Your task to perform on an android device: turn on improve location accuracy Image 0: 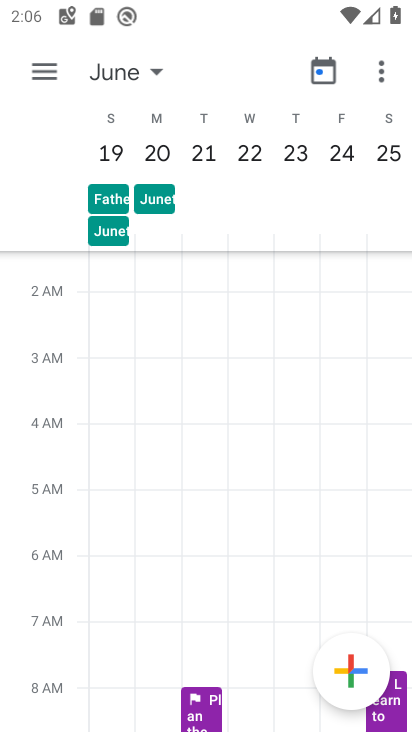
Step 0: press home button
Your task to perform on an android device: turn on improve location accuracy Image 1: 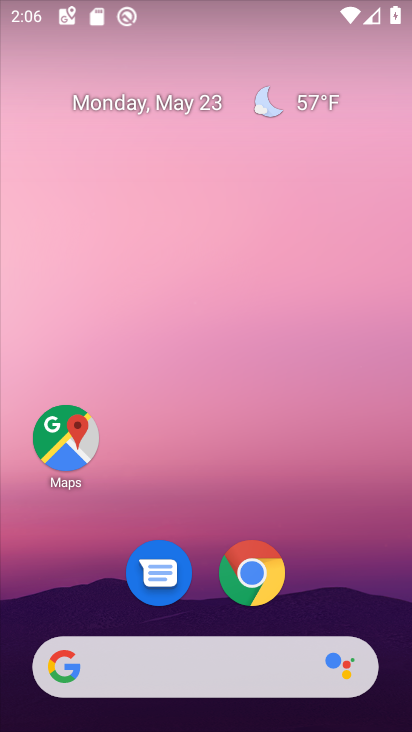
Step 1: drag from (351, 560) to (369, 130)
Your task to perform on an android device: turn on improve location accuracy Image 2: 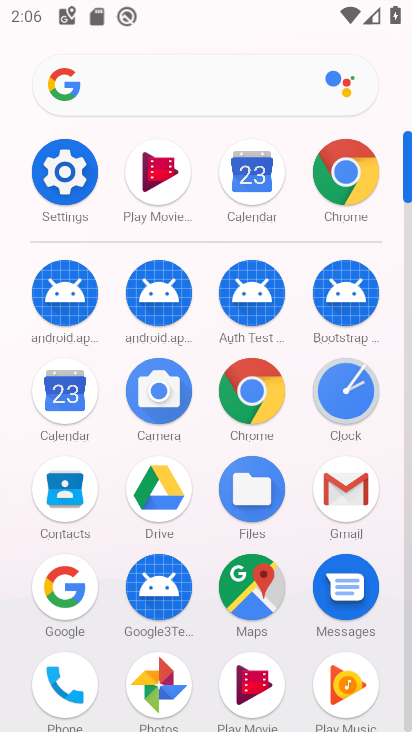
Step 2: click (86, 178)
Your task to perform on an android device: turn on improve location accuracy Image 3: 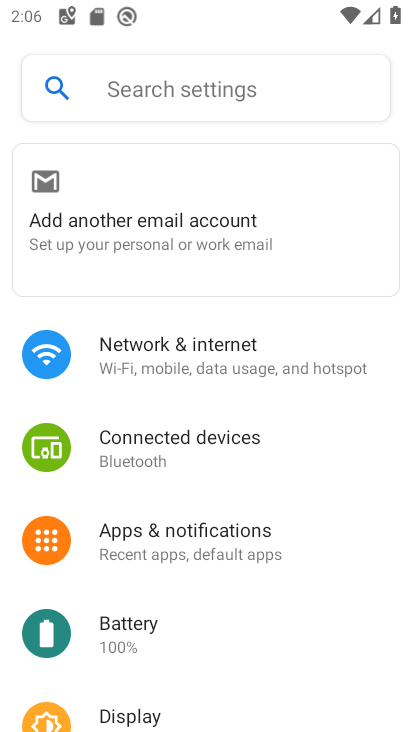
Step 3: drag from (256, 583) to (302, 115)
Your task to perform on an android device: turn on improve location accuracy Image 4: 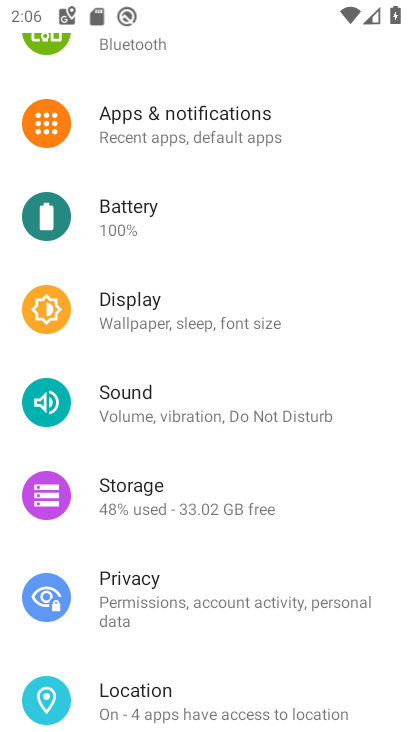
Step 4: drag from (210, 563) to (216, 255)
Your task to perform on an android device: turn on improve location accuracy Image 5: 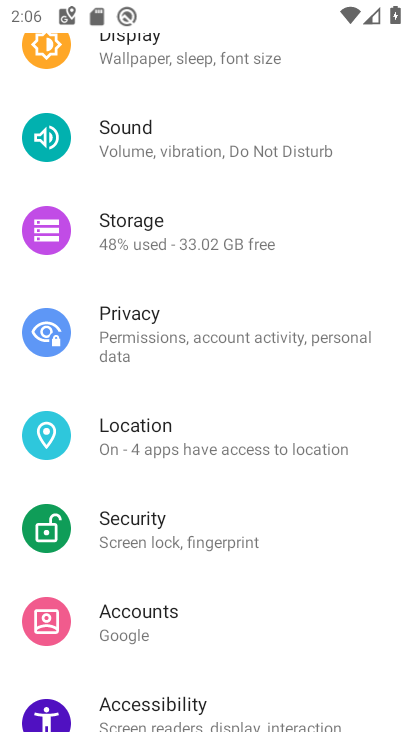
Step 5: click (219, 432)
Your task to perform on an android device: turn on improve location accuracy Image 6: 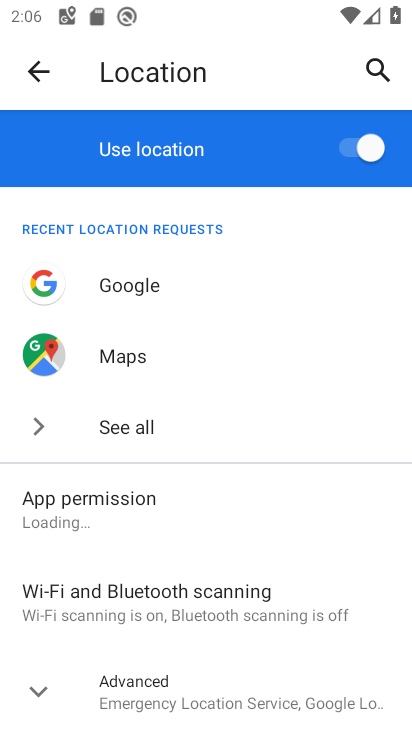
Step 6: drag from (238, 606) to (268, 281)
Your task to perform on an android device: turn on improve location accuracy Image 7: 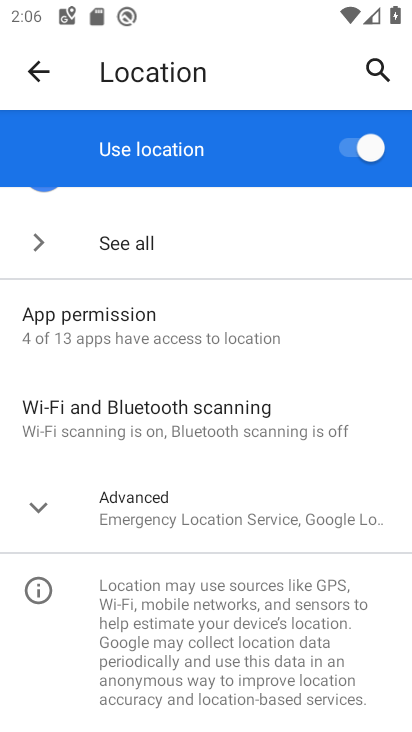
Step 7: click (222, 484)
Your task to perform on an android device: turn on improve location accuracy Image 8: 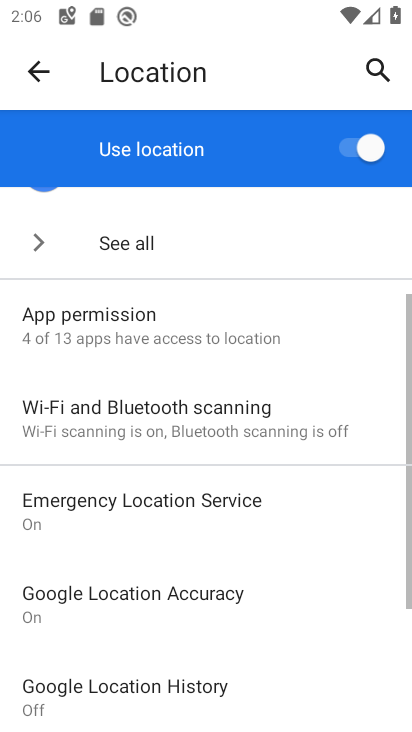
Step 8: drag from (205, 653) to (203, 372)
Your task to perform on an android device: turn on improve location accuracy Image 9: 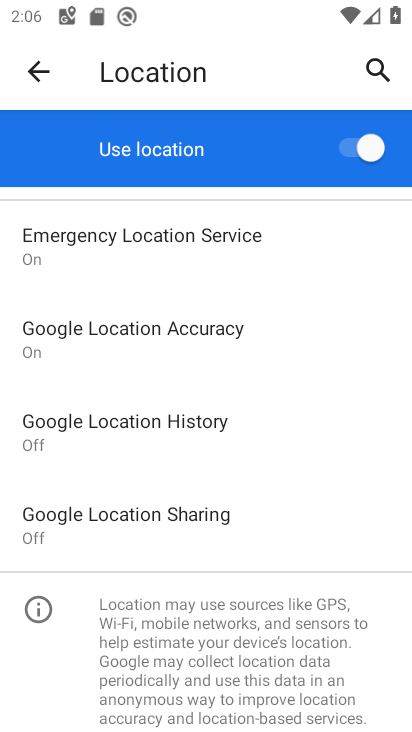
Step 9: click (223, 346)
Your task to perform on an android device: turn on improve location accuracy Image 10: 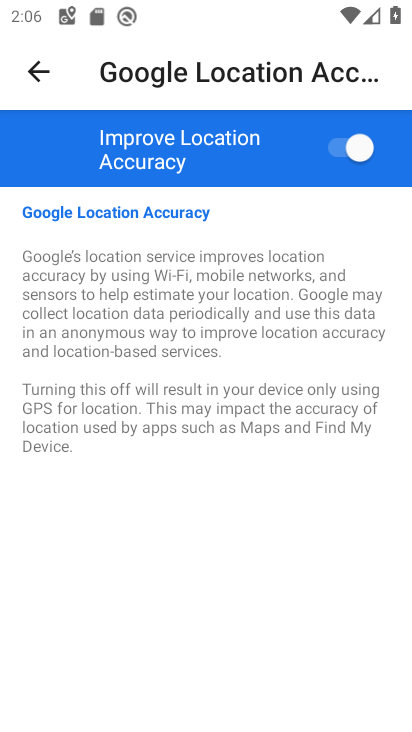
Step 10: task complete